Your task to perform on an android device: open the mobile data screen to see how much data has been used Image 0: 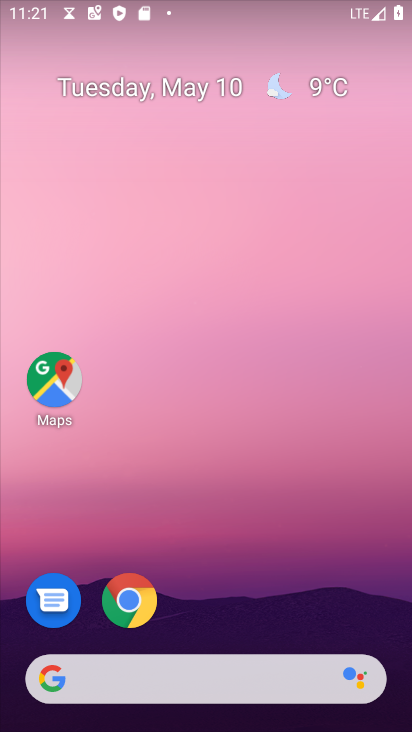
Step 0: drag from (265, 606) to (210, 205)
Your task to perform on an android device: open the mobile data screen to see how much data has been used Image 1: 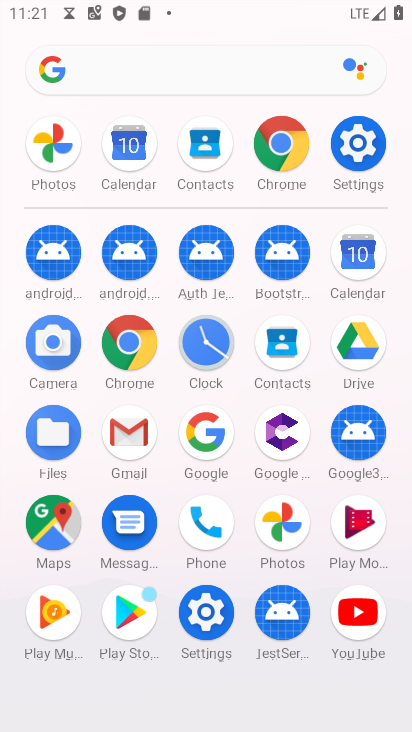
Step 1: click (356, 152)
Your task to perform on an android device: open the mobile data screen to see how much data has been used Image 2: 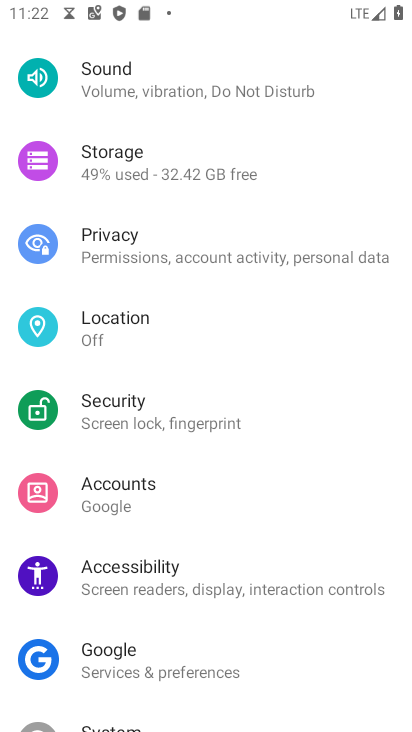
Step 2: drag from (188, 125) to (203, 702)
Your task to perform on an android device: open the mobile data screen to see how much data has been used Image 3: 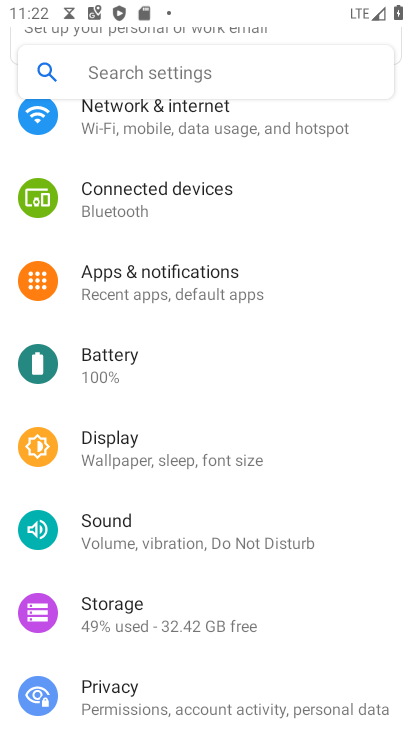
Step 3: click (203, 136)
Your task to perform on an android device: open the mobile data screen to see how much data has been used Image 4: 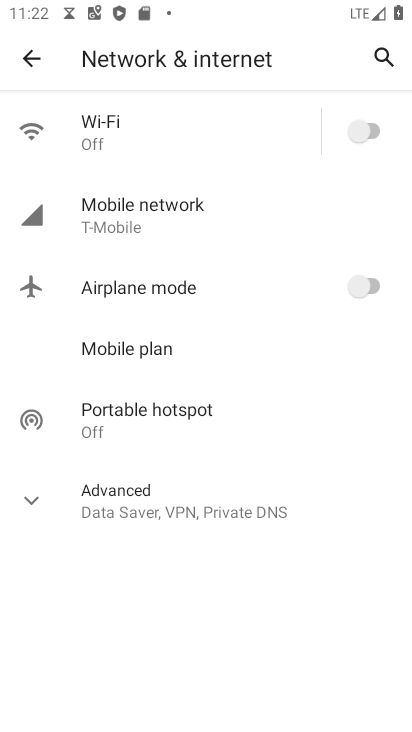
Step 4: click (148, 200)
Your task to perform on an android device: open the mobile data screen to see how much data has been used Image 5: 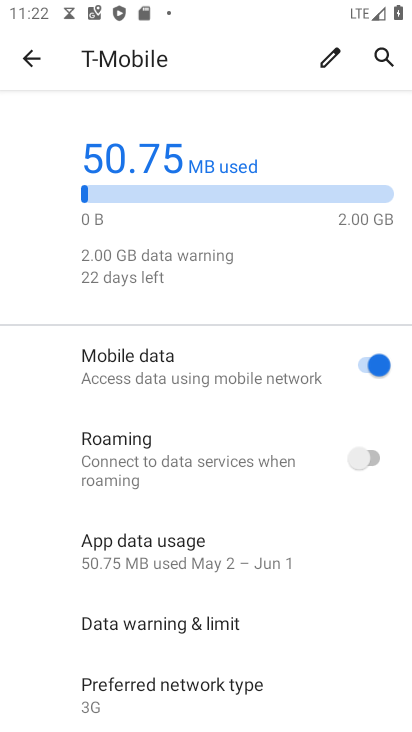
Step 5: task complete